Your task to perform on an android device: Open my contact list Image 0: 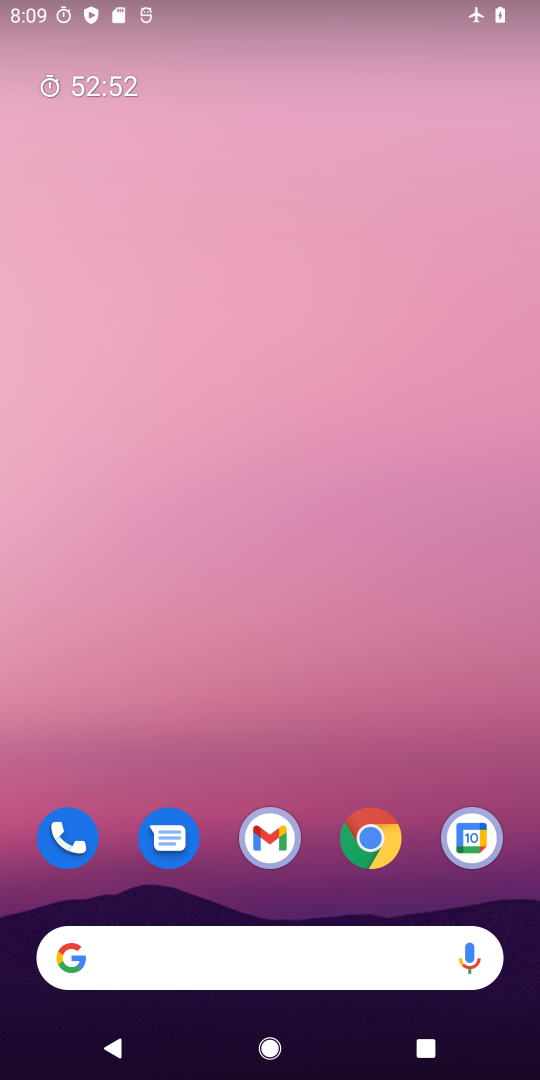
Step 0: press home button
Your task to perform on an android device: Open my contact list Image 1: 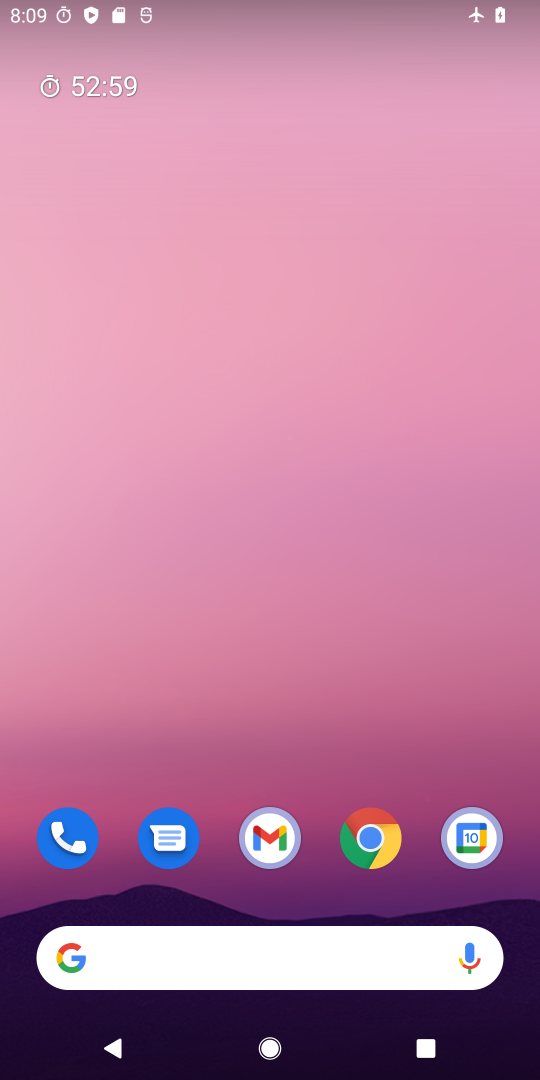
Step 1: drag from (312, 721) to (340, 315)
Your task to perform on an android device: Open my contact list Image 2: 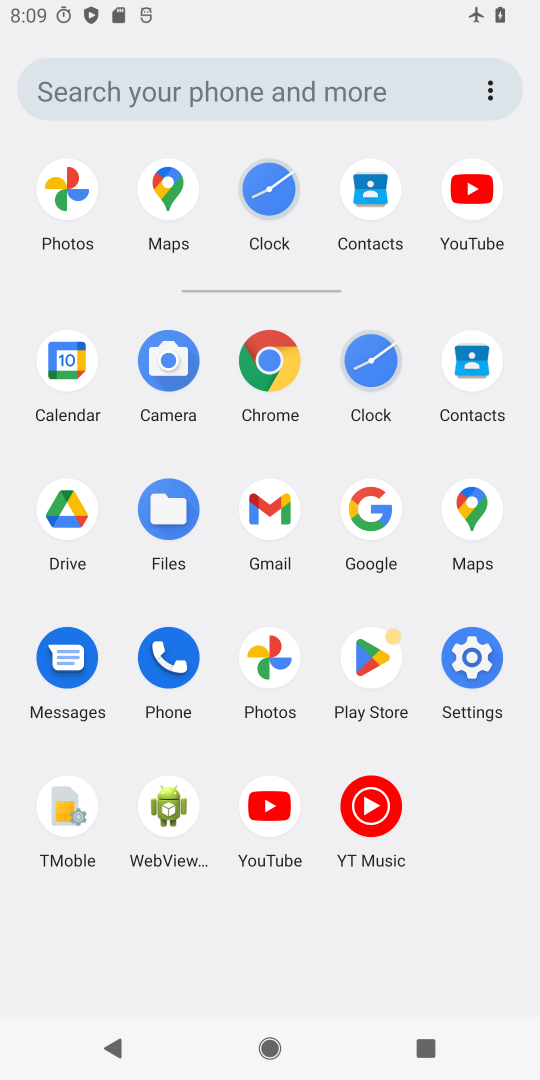
Step 2: click (390, 206)
Your task to perform on an android device: Open my contact list Image 3: 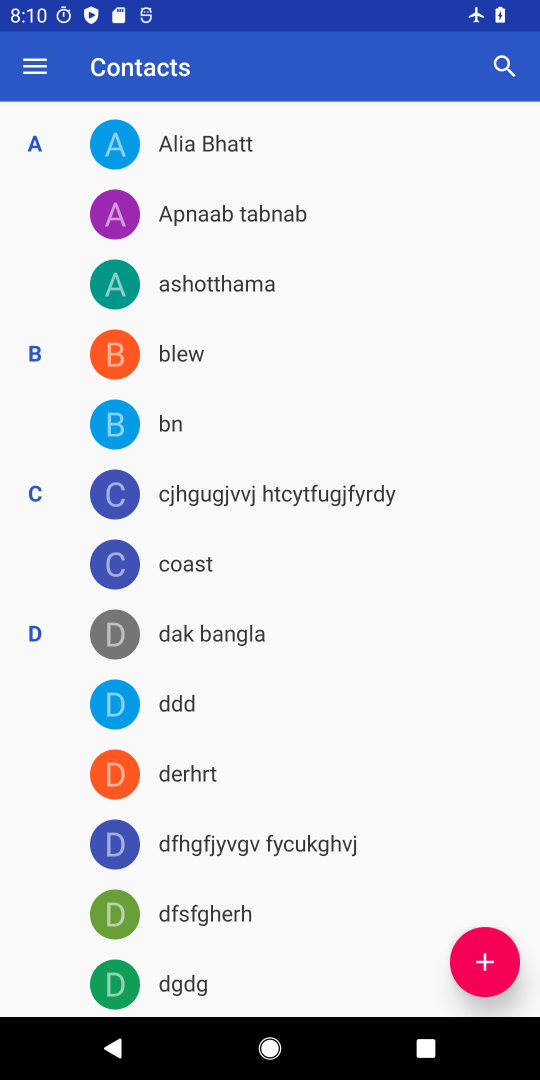
Step 3: task complete